Your task to perform on an android device: Go to Yahoo.com Image 0: 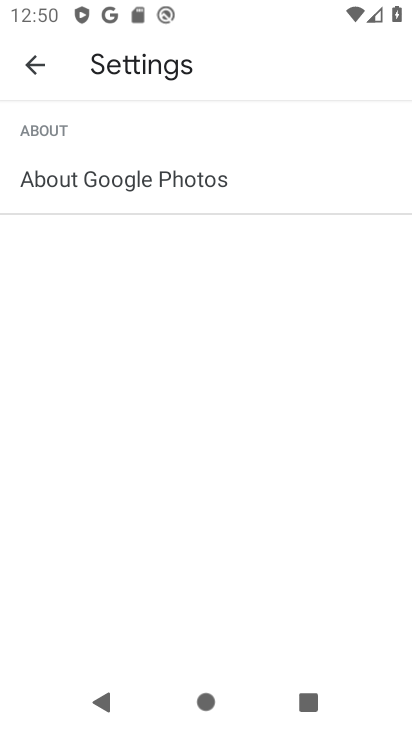
Step 0: press home button
Your task to perform on an android device: Go to Yahoo.com Image 1: 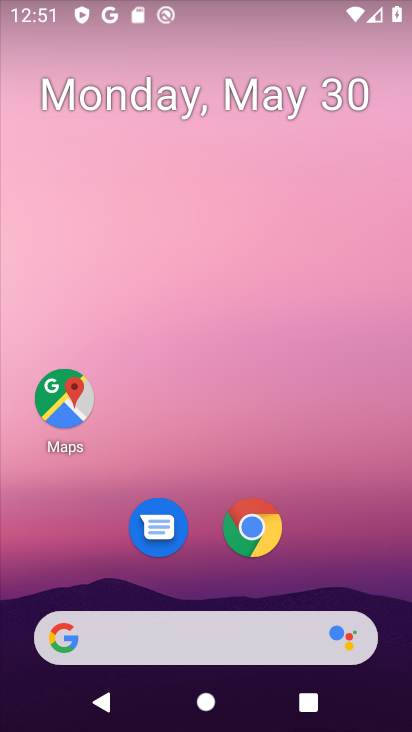
Step 1: click (251, 511)
Your task to perform on an android device: Go to Yahoo.com Image 2: 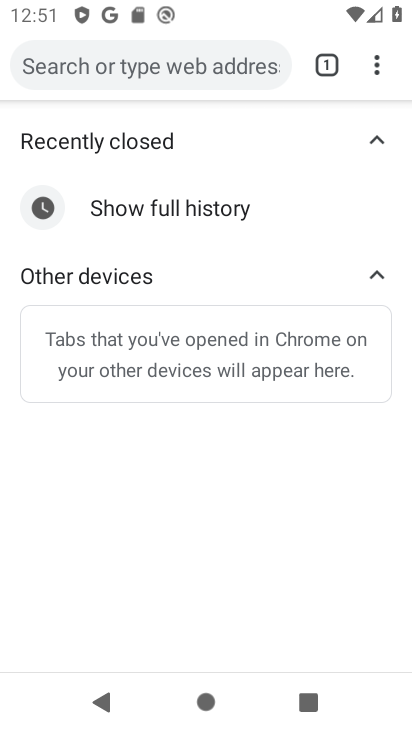
Step 2: click (211, 54)
Your task to perform on an android device: Go to Yahoo.com Image 3: 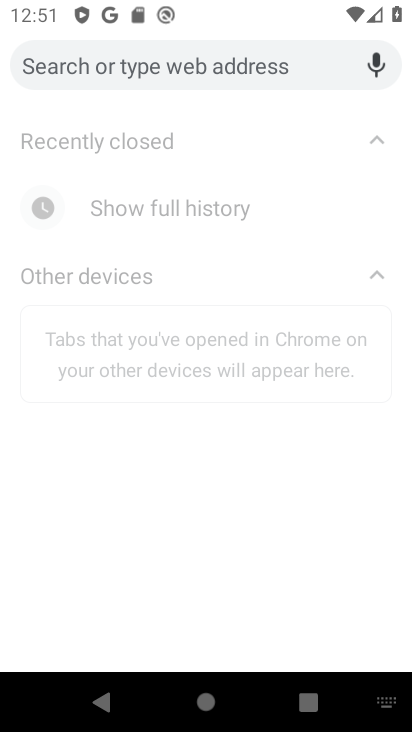
Step 3: type "yahoo.com"
Your task to perform on an android device: Go to Yahoo.com Image 4: 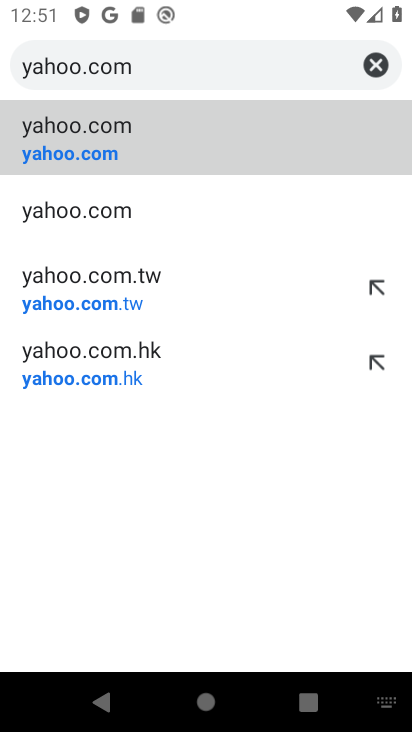
Step 4: click (52, 147)
Your task to perform on an android device: Go to Yahoo.com Image 5: 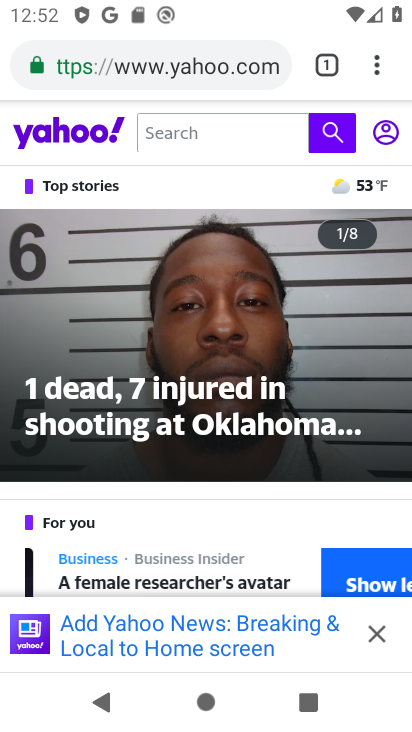
Step 5: task complete